Your task to perform on an android device: change the clock style Image 0: 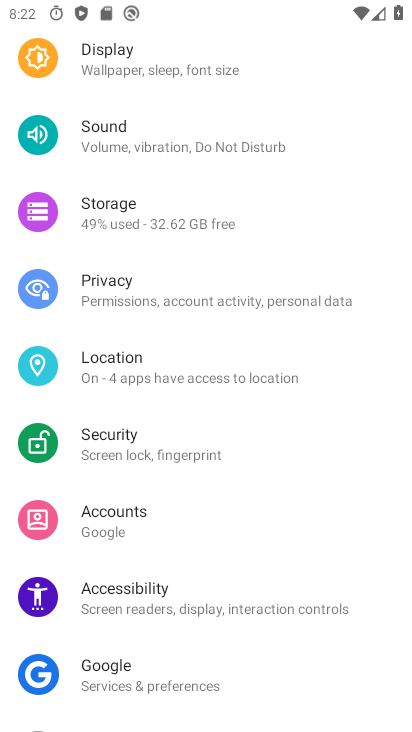
Step 0: press home button
Your task to perform on an android device: change the clock style Image 1: 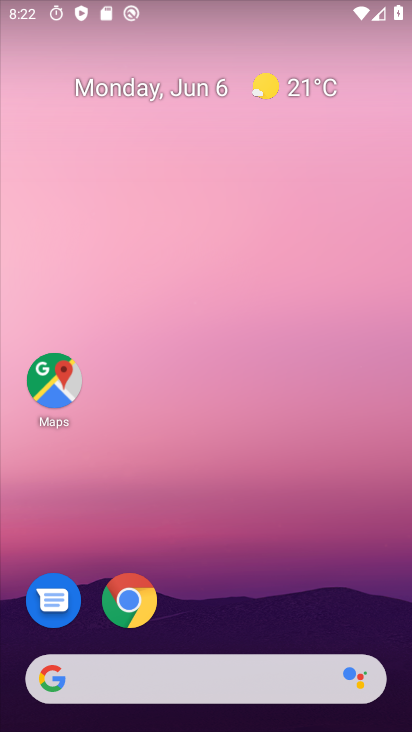
Step 1: drag from (229, 609) to (224, 23)
Your task to perform on an android device: change the clock style Image 2: 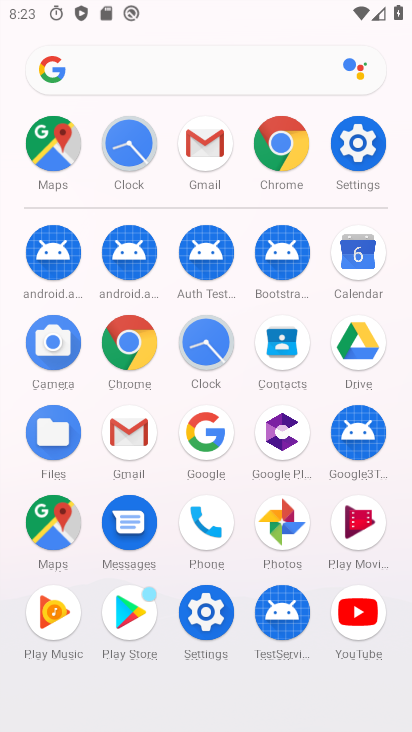
Step 2: click (127, 136)
Your task to perform on an android device: change the clock style Image 3: 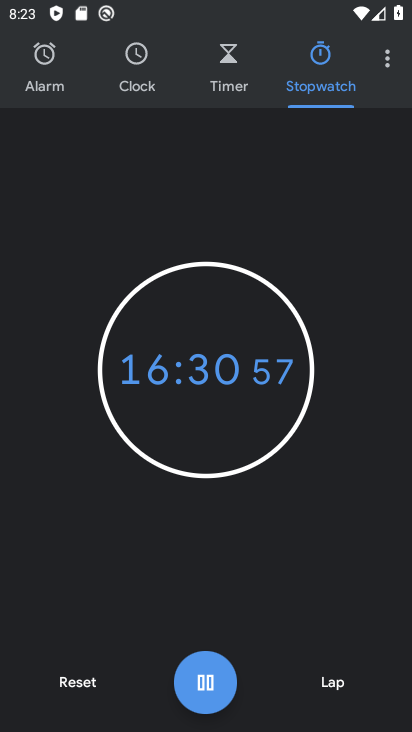
Step 3: drag from (386, 49) to (233, 104)
Your task to perform on an android device: change the clock style Image 4: 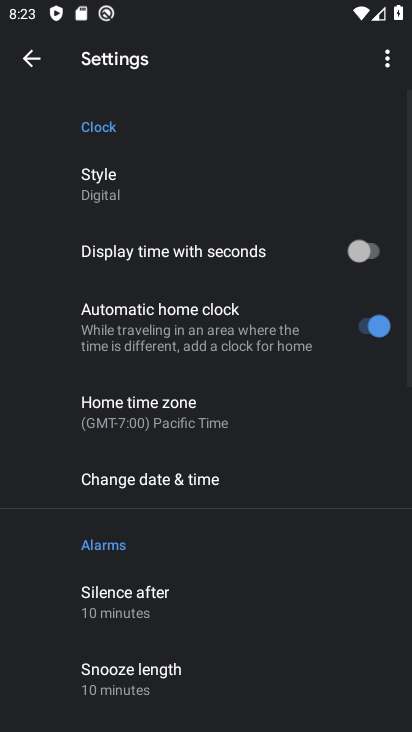
Step 4: click (153, 188)
Your task to perform on an android device: change the clock style Image 5: 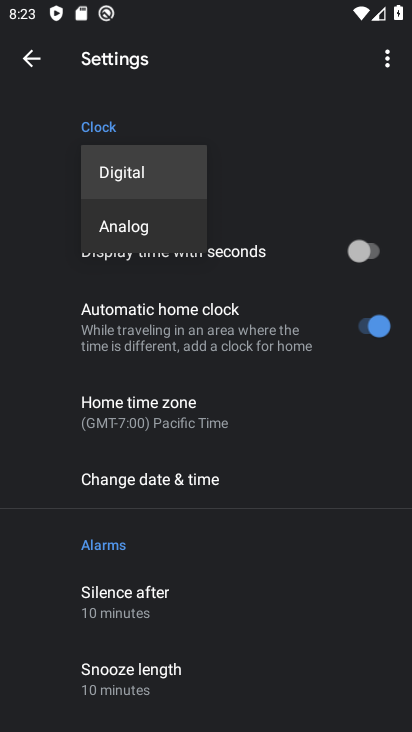
Step 5: click (141, 207)
Your task to perform on an android device: change the clock style Image 6: 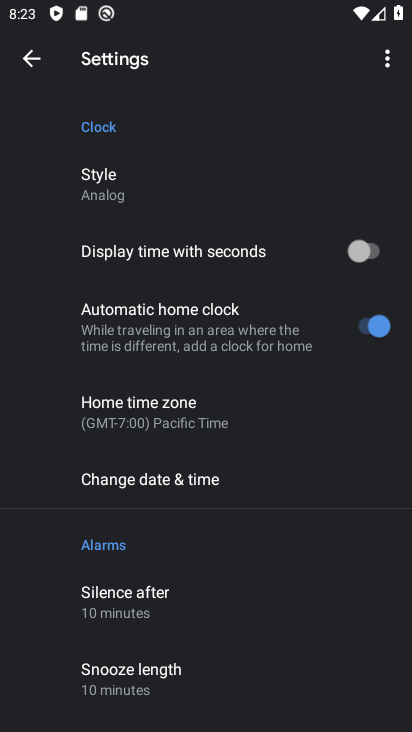
Step 6: task complete